Your task to perform on an android device: turn on javascript in the chrome app Image 0: 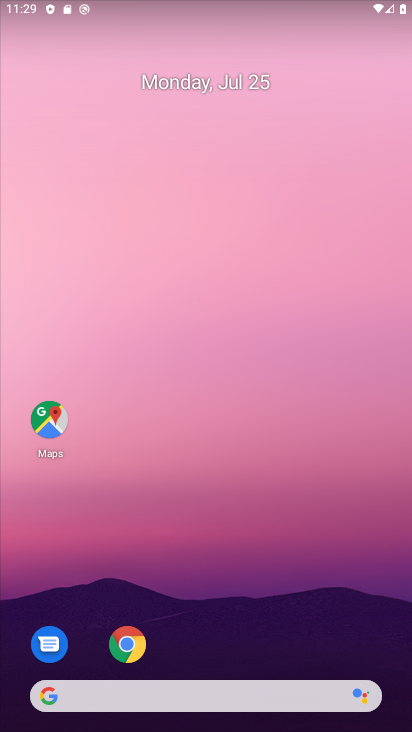
Step 0: click (127, 642)
Your task to perform on an android device: turn on javascript in the chrome app Image 1: 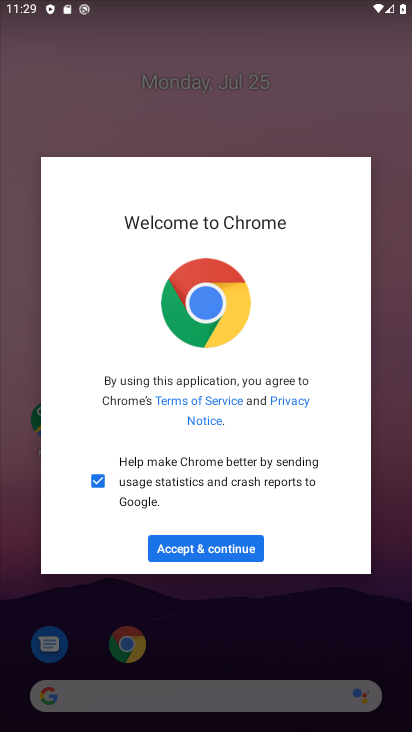
Step 1: click (216, 550)
Your task to perform on an android device: turn on javascript in the chrome app Image 2: 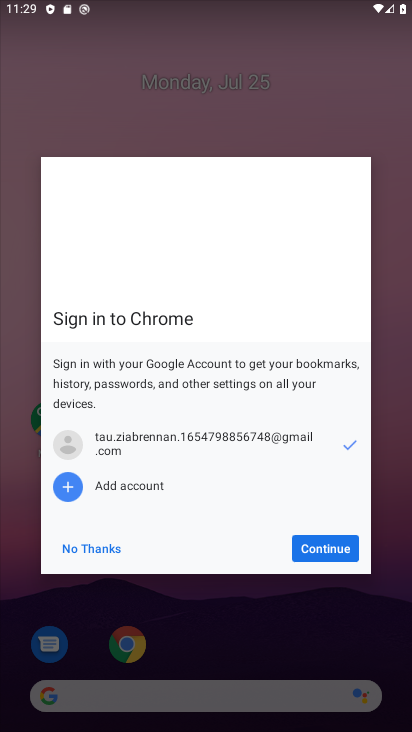
Step 2: click (304, 552)
Your task to perform on an android device: turn on javascript in the chrome app Image 3: 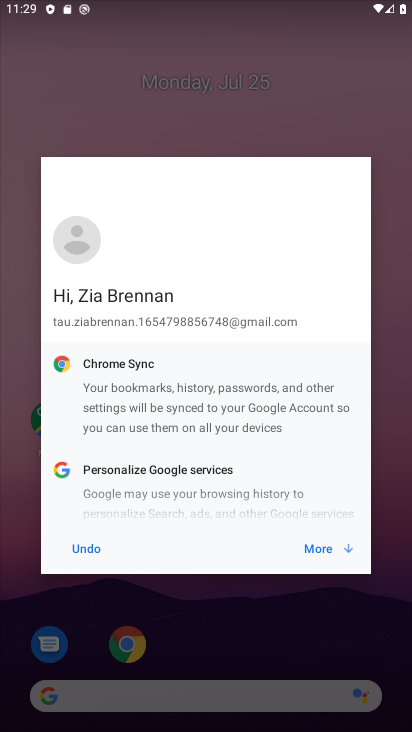
Step 3: click (317, 551)
Your task to perform on an android device: turn on javascript in the chrome app Image 4: 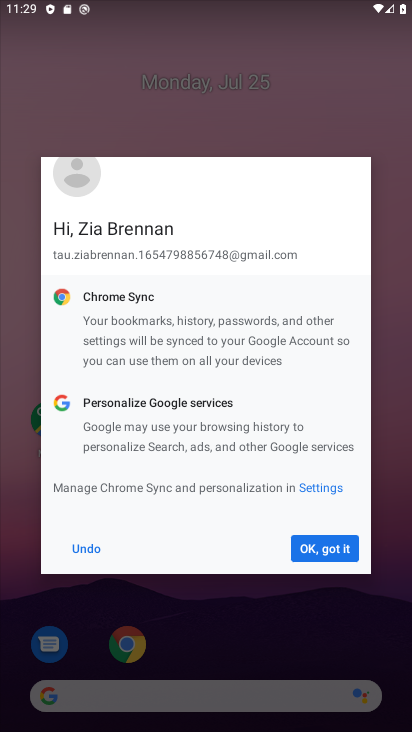
Step 4: click (317, 551)
Your task to perform on an android device: turn on javascript in the chrome app Image 5: 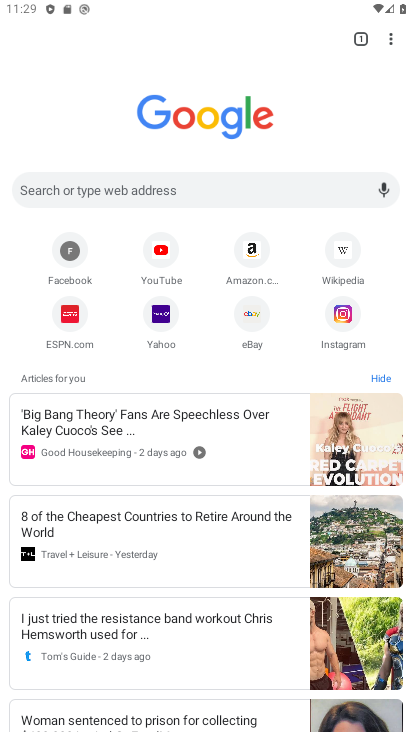
Step 5: click (396, 33)
Your task to perform on an android device: turn on javascript in the chrome app Image 6: 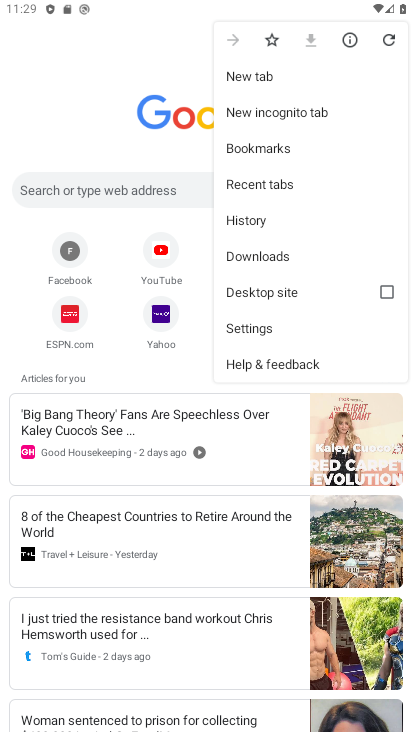
Step 6: click (274, 329)
Your task to perform on an android device: turn on javascript in the chrome app Image 7: 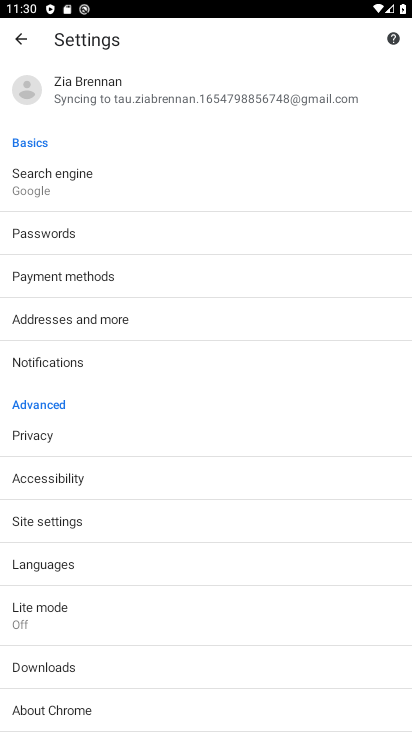
Step 7: click (80, 514)
Your task to perform on an android device: turn on javascript in the chrome app Image 8: 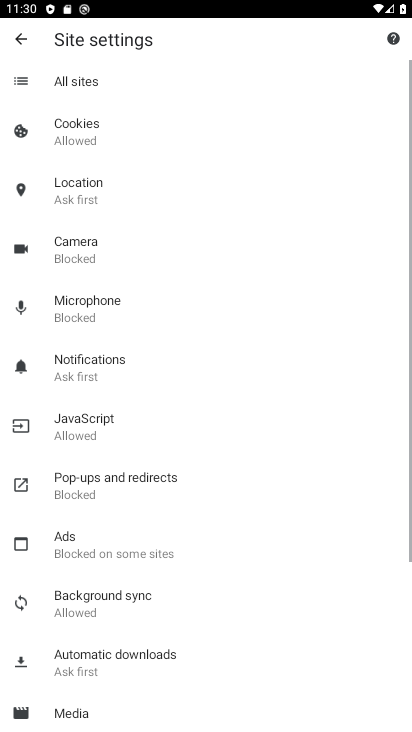
Step 8: click (120, 427)
Your task to perform on an android device: turn on javascript in the chrome app Image 9: 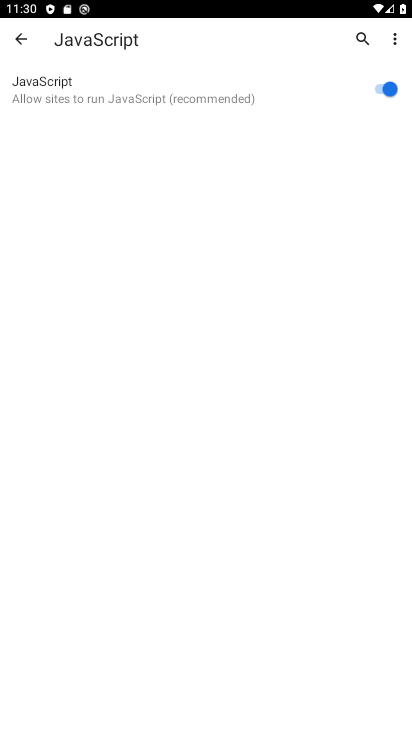
Step 9: task complete